Your task to perform on an android device: Show me the alarms in the clock app Image 0: 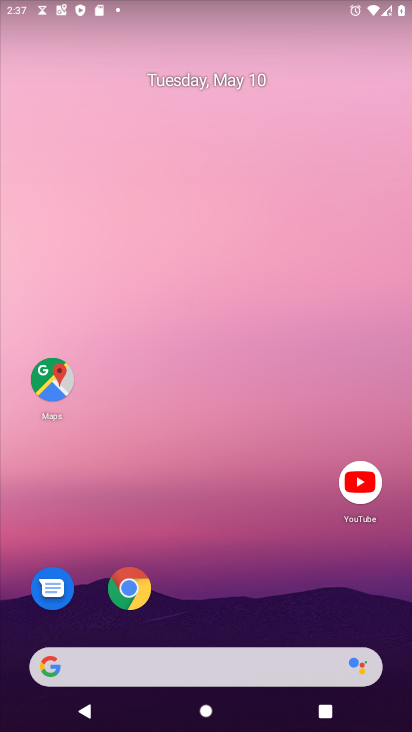
Step 0: drag from (264, 580) to (301, 249)
Your task to perform on an android device: Show me the alarms in the clock app Image 1: 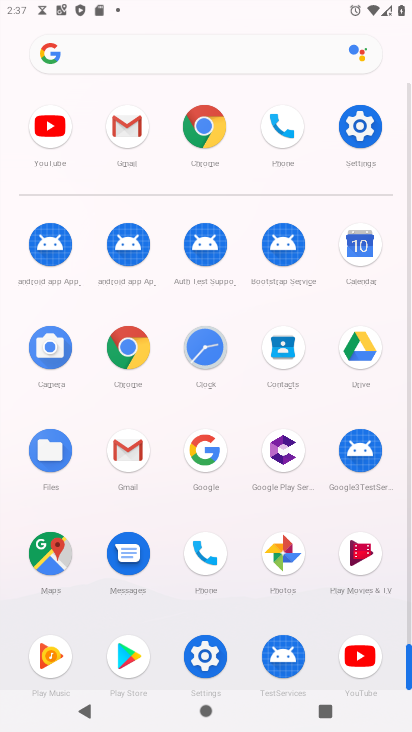
Step 1: click (202, 338)
Your task to perform on an android device: Show me the alarms in the clock app Image 2: 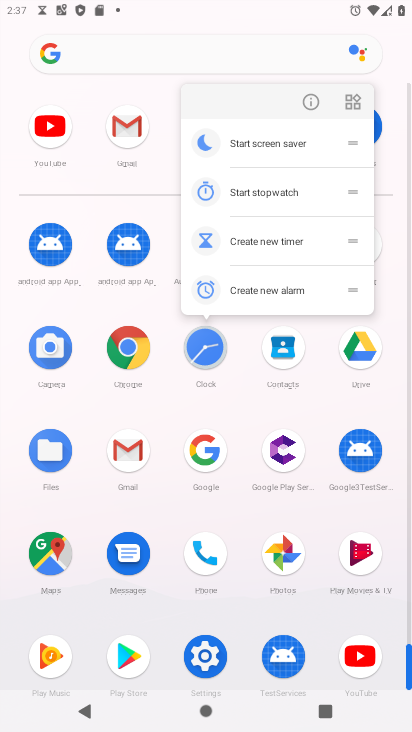
Step 2: click (202, 342)
Your task to perform on an android device: Show me the alarms in the clock app Image 3: 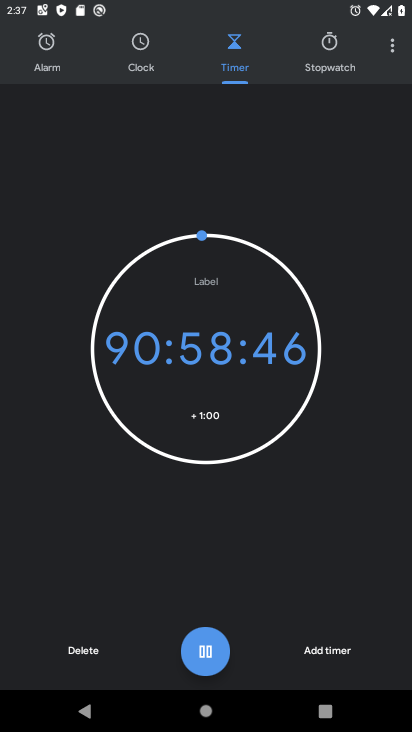
Step 3: click (40, 52)
Your task to perform on an android device: Show me the alarms in the clock app Image 4: 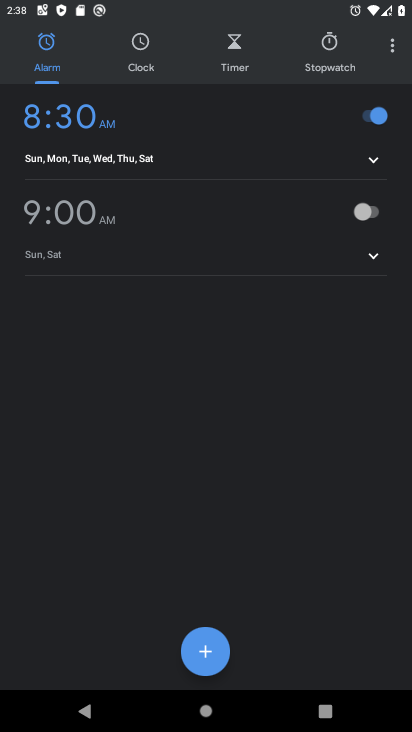
Step 4: task complete